Your task to perform on an android device: Turn off the flashlight Image 0: 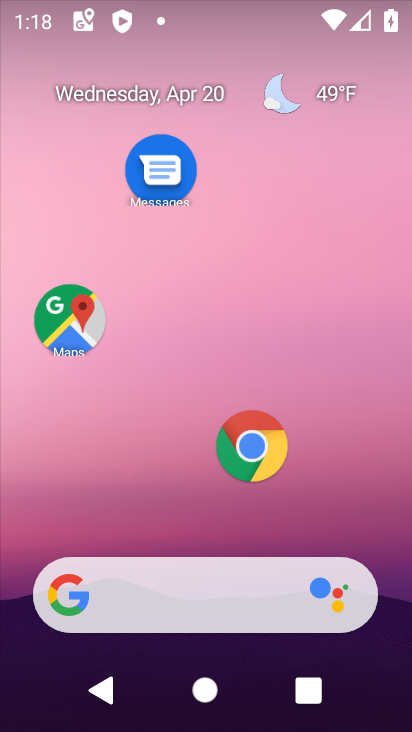
Step 0: drag from (204, 528) to (238, 40)
Your task to perform on an android device: Turn off the flashlight Image 1: 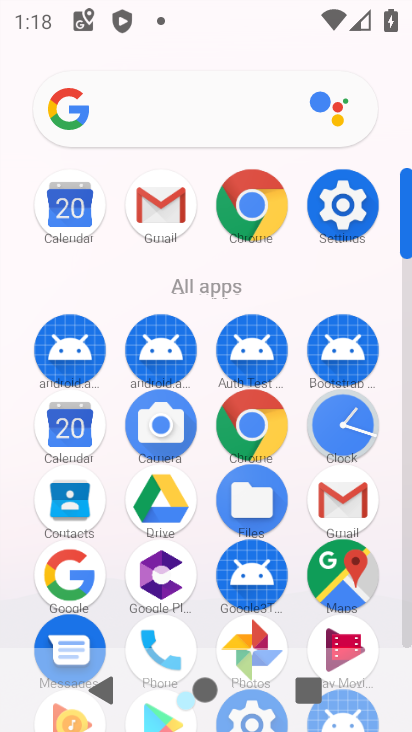
Step 1: click (340, 199)
Your task to perform on an android device: Turn off the flashlight Image 2: 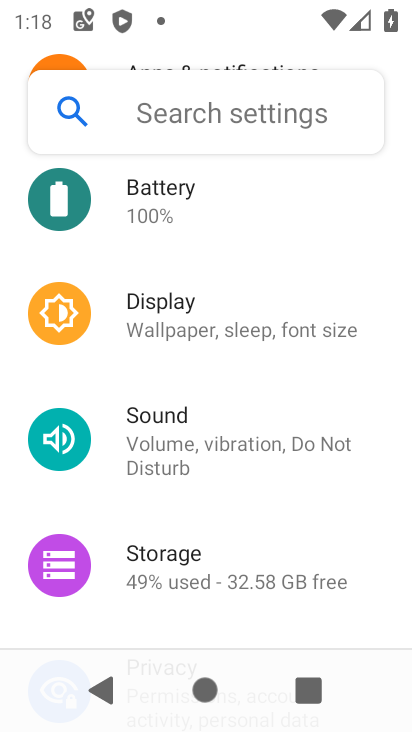
Step 2: click (187, 102)
Your task to perform on an android device: Turn off the flashlight Image 3: 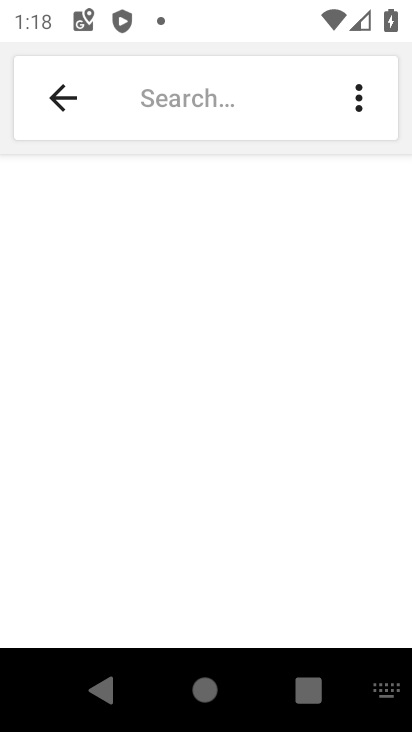
Step 3: type "flashlight"
Your task to perform on an android device: Turn off the flashlight Image 4: 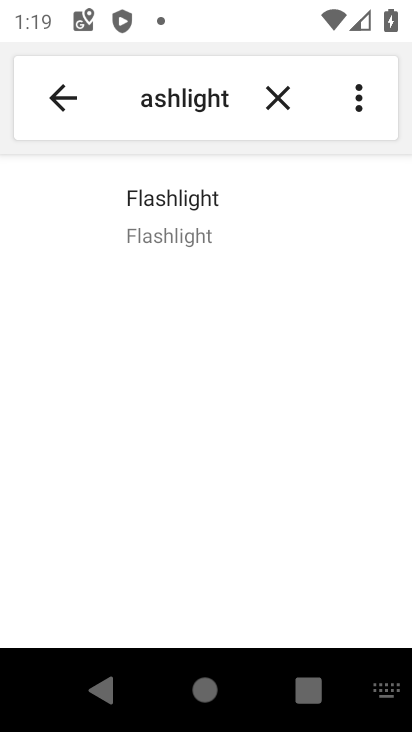
Step 4: click (184, 210)
Your task to perform on an android device: Turn off the flashlight Image 5: 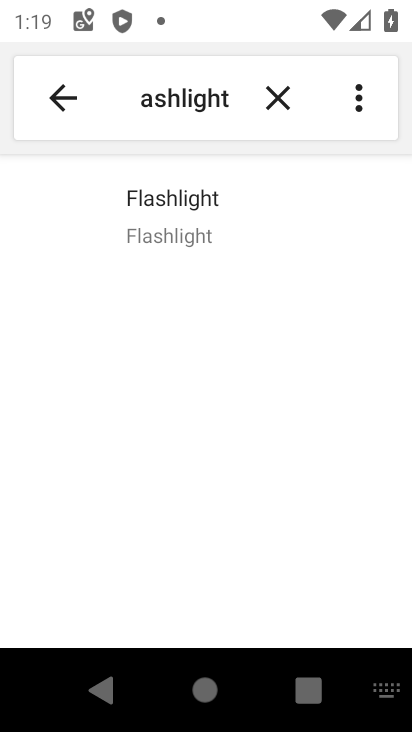
Step 5: task complete